Your task to perform on an android device: What's the weather going to be this weekend? Image 0: 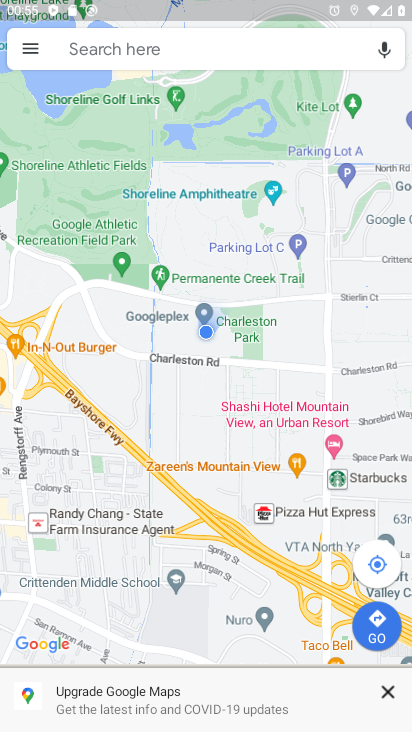
Step 0: press home button
Your task to perform on an android device: What's the weather going to be this weekend? Image 1: 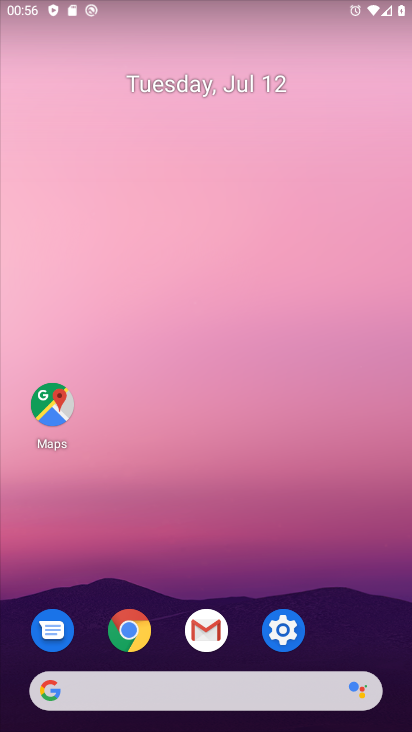
Step 1: drag from (212, 712) to (133, 174)
Your task to perform on an android device: What's the weather going to be this weekend? Image 2: 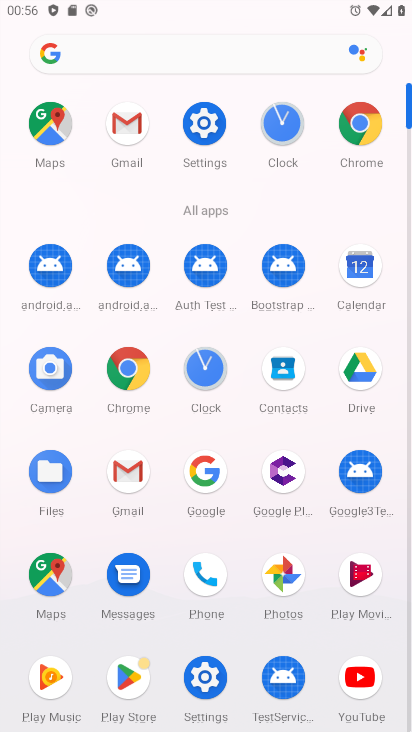
Step 2: click (101, 62)
Your task to perform on an android device: What's the weather going to be this weekend? Image 3: 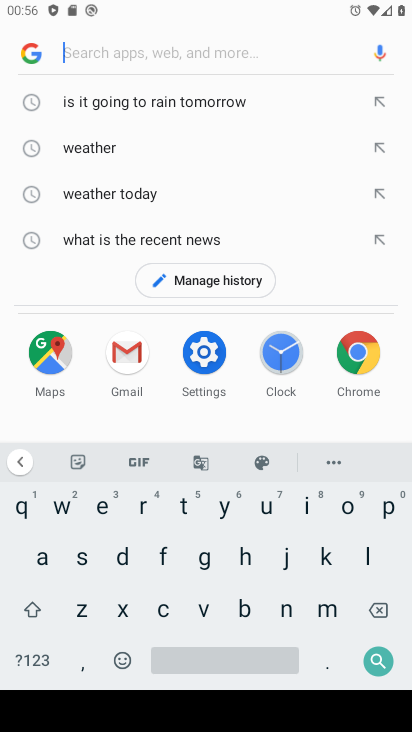
Step 3: click (105, 143)
Your task to perform on an android device: What's the weather going to be this weekend? Image 4: 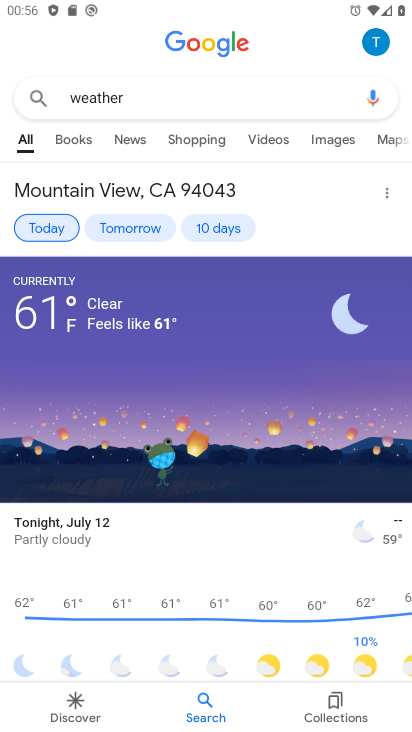
Step 4: click (203, 226)
Your task to perform on an android device: What's the weather going to be this weekend? Image 5: 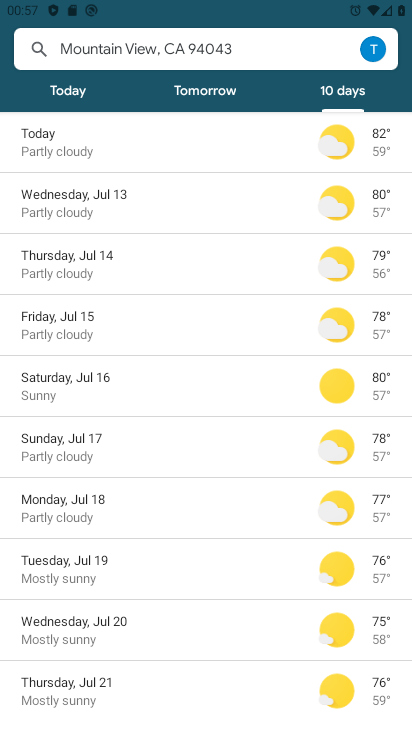
Step 5: task complete